Your task to perform on an android device: turn vacation reply on in the gmail app Image 0: 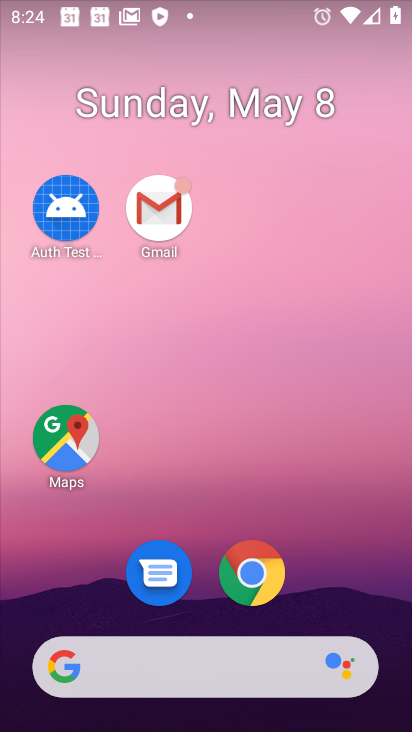
Step 0: drag from (367, 600) to (72, 71)
Your task to perform on an android device: turn vacation reply on in the gmail app Image 1: 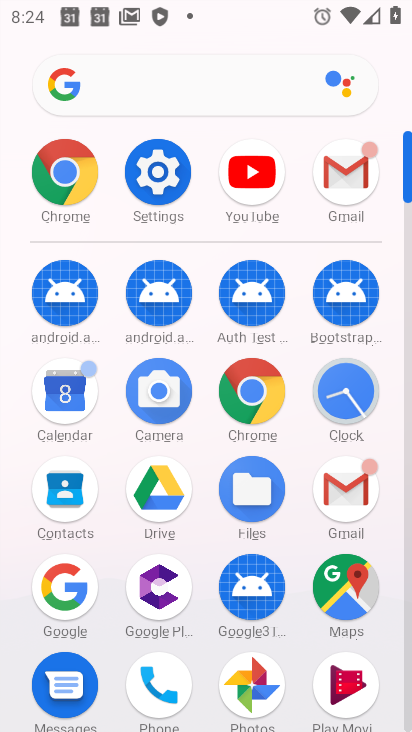
Step 1: click (344, 169)
Your task to perform on an android device: turn vacation reply on in the gmail app Image 2: 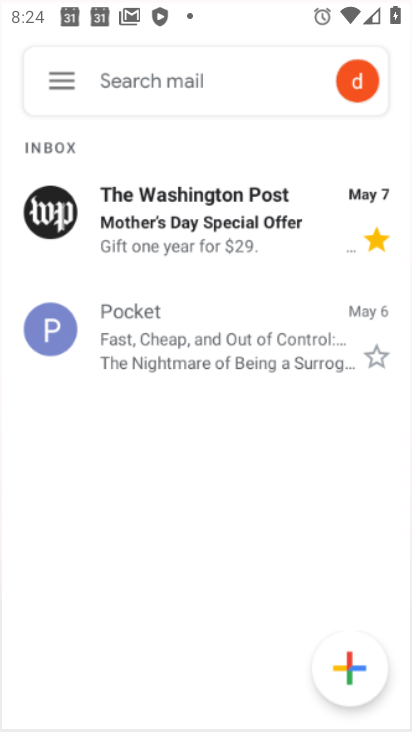
Step 2: click (344, 169)
Your task to perform on an android device: turn vacation reply on in the gmail app Image 3: 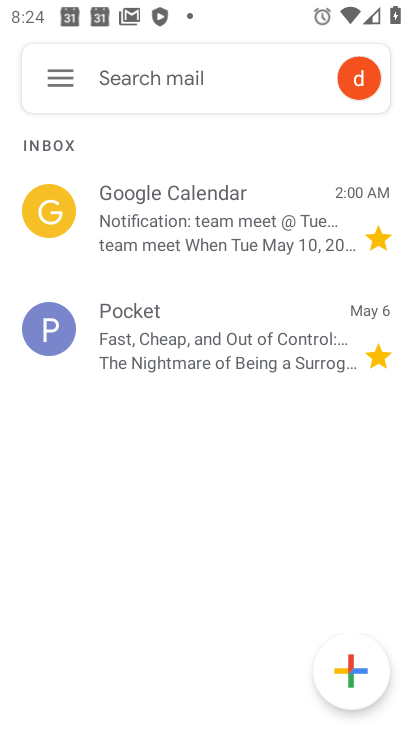
Step 3: click (64, 75)
Your task to perform on an android device: turn vacation reply on in the gmail app Image 4: 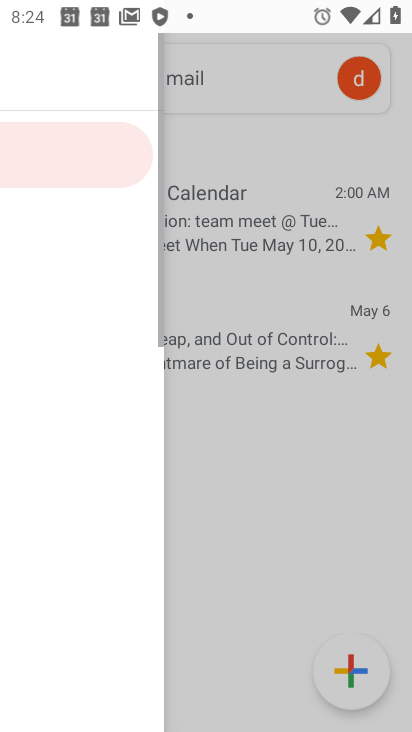
Step 4: click (63, 74)
Your task to perform on an android device: turn vacation reply on in the gmail app Image 5: 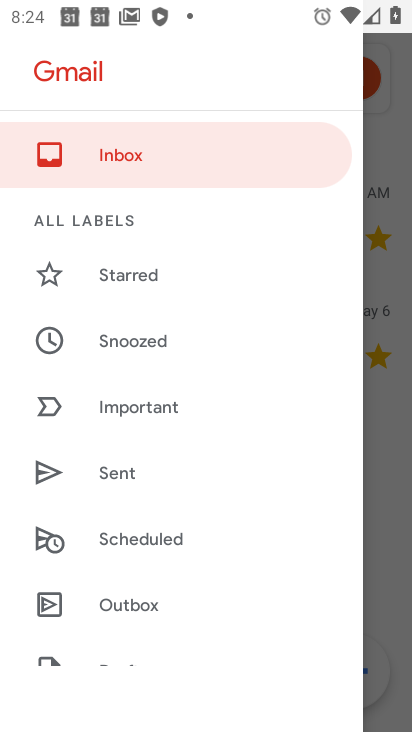
Step 5: drag from (225, 574) to (156, 230)
Your task to perform on an android device: turn vacation reply on in the gmail app Image 6: 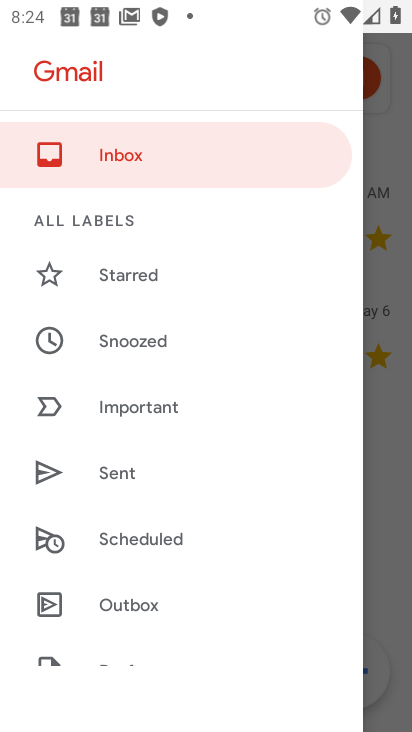
Step 6: drag from (199, 295) to (219, 574)
Your task to perform on an android device: turn vacation reply on in the gmail app Image 7: 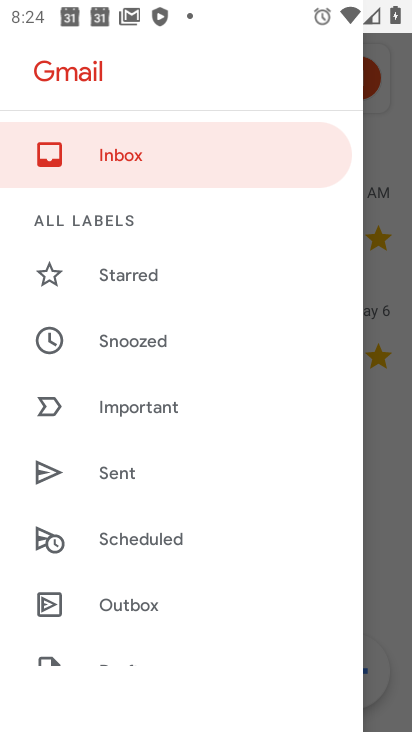
Step 7: drag from (181, 274) to (300, 680)
Your task to perform on an android device: turn vacation reply on in the gmail app Image 8: 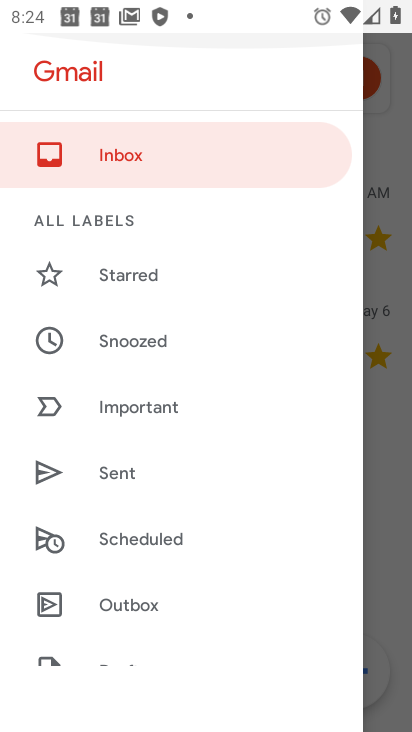
Step 8: drag from (216, 558) to (152, 116)
Your task to perform on an android device: turn vacation reply on in the gmail app Image 9: 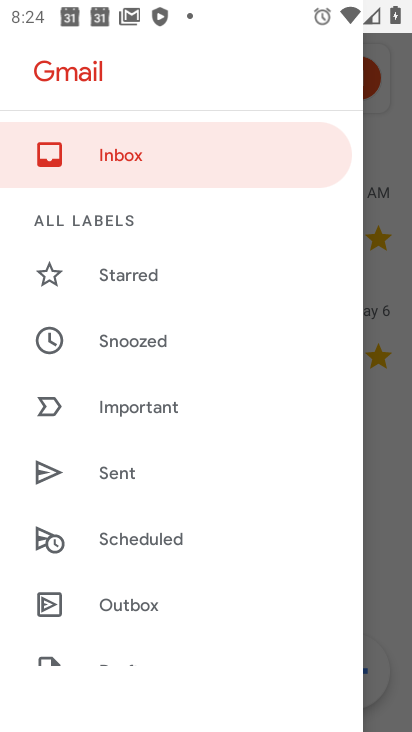
Step 9: drag from (193, 424) to (152, 7)
Your task to perform on an android device: turn vacation reply on in the gmail app Image 10: 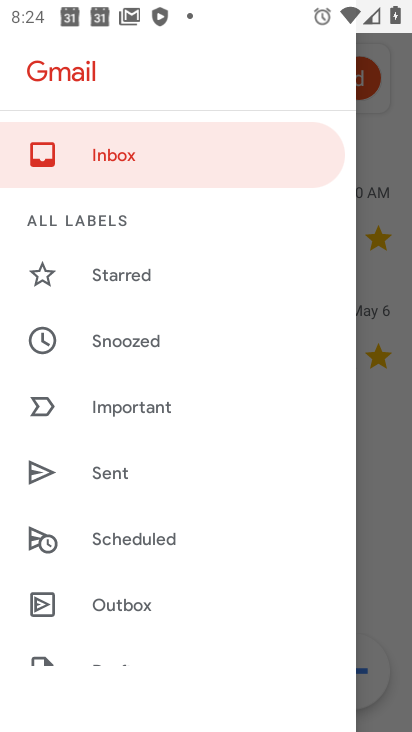
Step 10: drag from (187, 465) to (147, 112)
Your task to perform on an android device: turn vacation reply on in the gmail app Image 11: 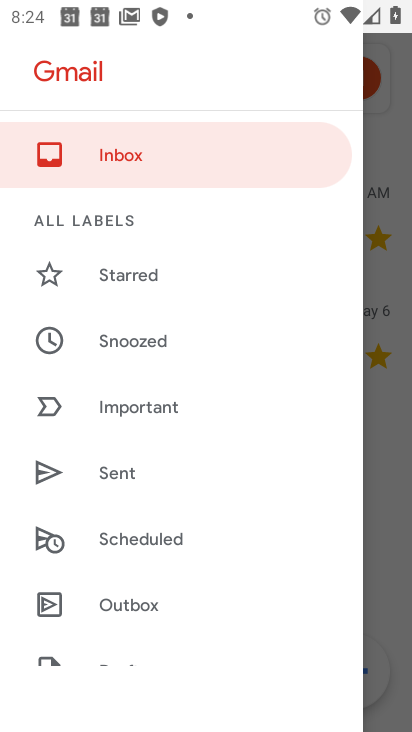
Step 11: drag from (181, 344) to (252, 590)
Your task to perform on an android device: turn vacation reply on in the gmail app Image 12: 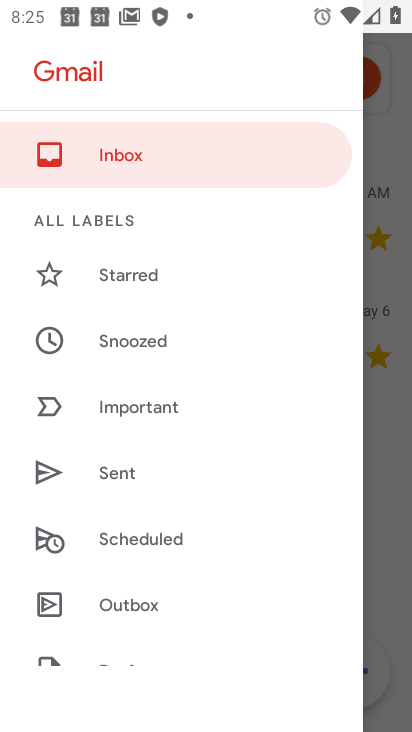
Step 12: drag from (160, 299) to (214, 676)
Your task to perform on an android device: turn vacation reply on in the gmail app Image 13: 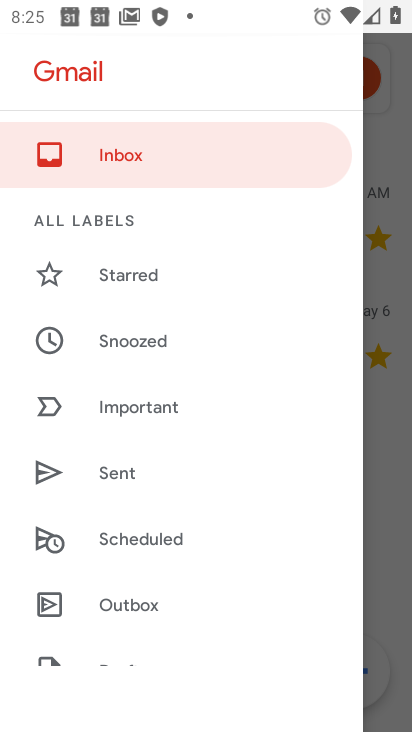
Step 13: drag from (207, 517) to (144, 82)
Your task to perform on an android device: turn vacation reply on in the gmail app Image 14: 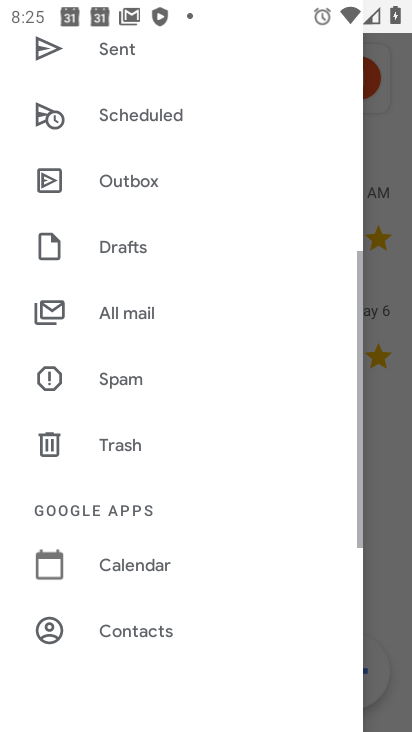
Step 14: drag from (204, 569) to (85, 124)
Your task to perform on an android device: turn vacation reply on in the gmail app Image 15: 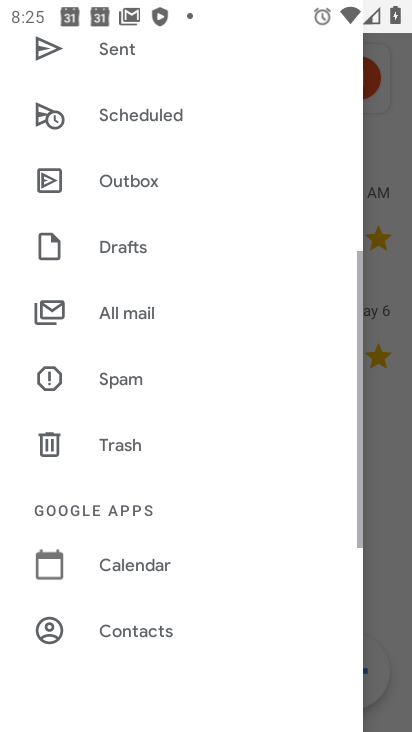
Step 15: drag from (141, 539) to (154, 13)
Your task to perform on an android device: turn vacation reply on in the gmail app Image 16: 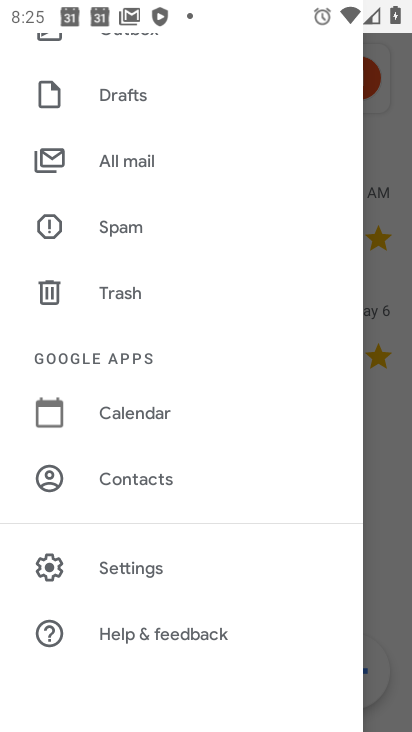
Step 16: click (129, 564)
Your task to perform on an android device: turn vacation reply on in the gmail app Image 17: 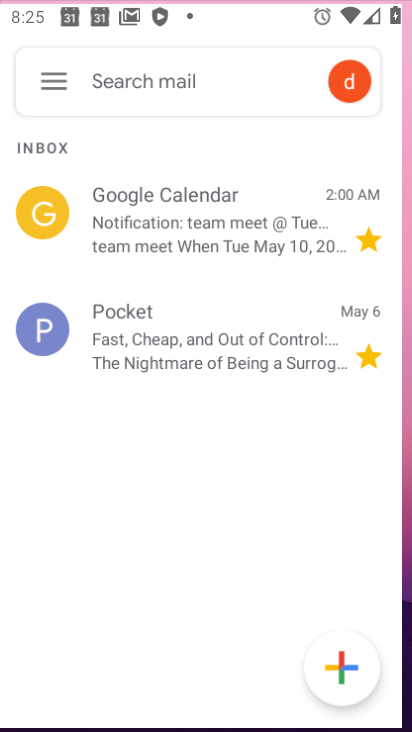
Step 17: click (125, 561)
Your task to perform on an android device: turn vacation reply on in the gmail app Image 18: 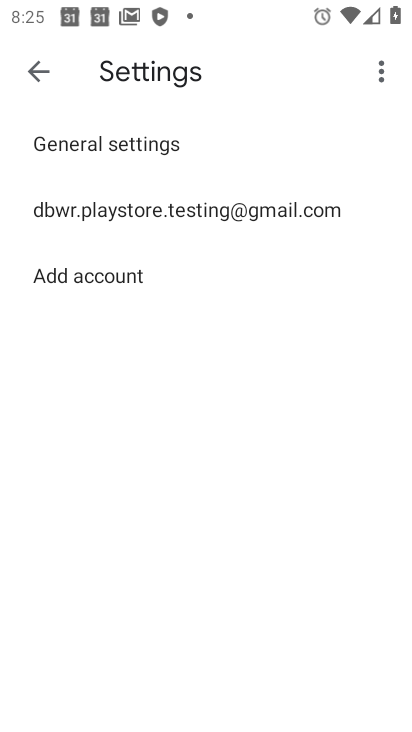
Step 18: click (158, 211)
Your task to perform on an android device: turn vacation reply on in the gmail app Image 19: 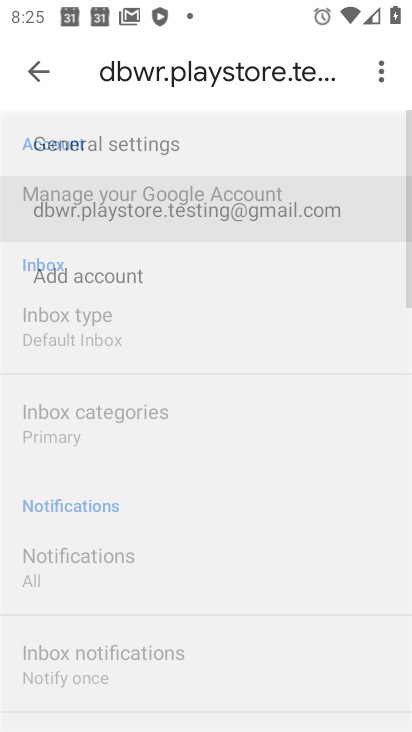
Step 19: click (158, 213)
Your task to perform on an android device: turn vacation reply on in the gmail app Image 20: 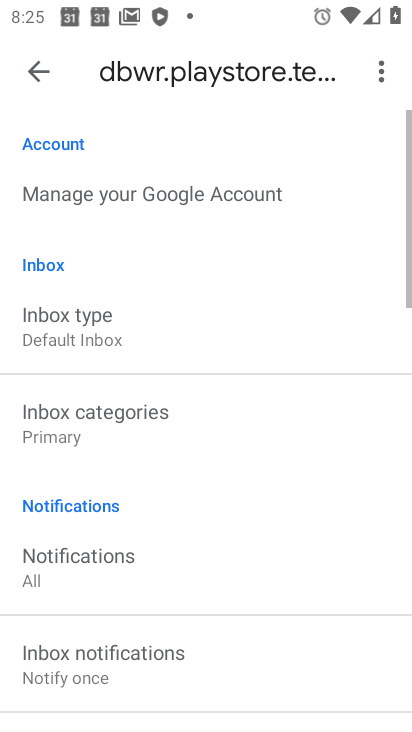
Step 20: click (158, 213)
Your task to perform on an android device: turn vacation reply on in the gmail app Image 21: 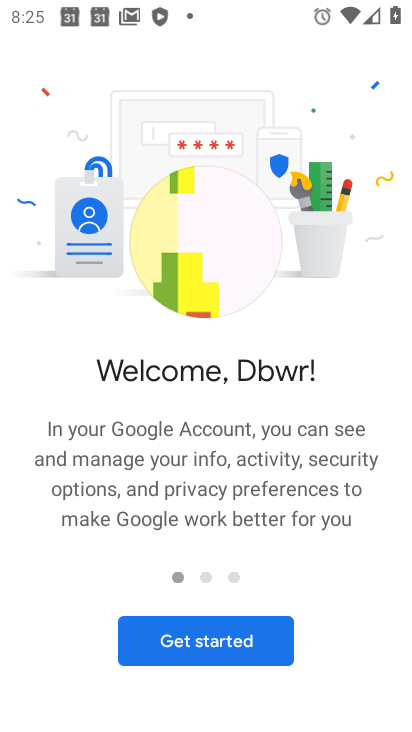
Step 21: click (218, 631)
Your task to perform on an android device: turn vacation reply on in the gmail app Image 22: 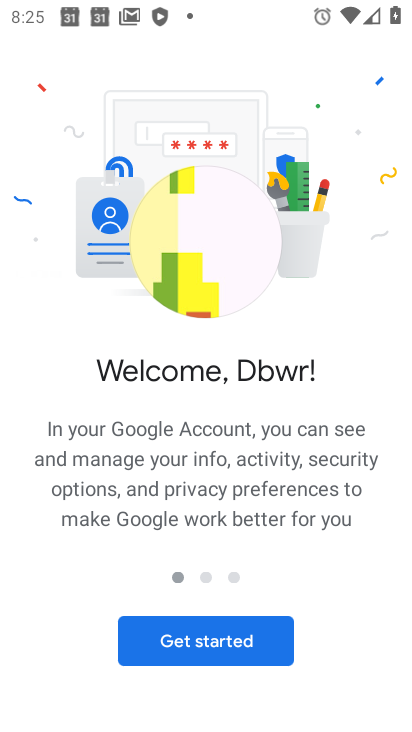
Step 22: click (212, 646)
Your task to perform on an android device: turn vacation reply on in the gmail app Image 23: 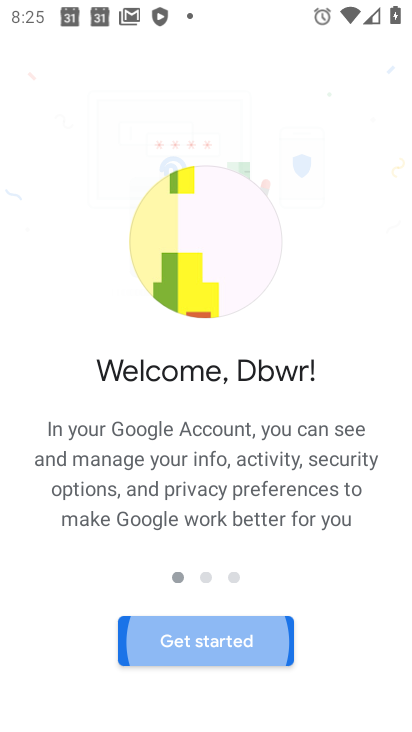
Step 23: click (206, 661)
Your task to perform on an android device: turn vacation reply on in the gmail app Image 24: 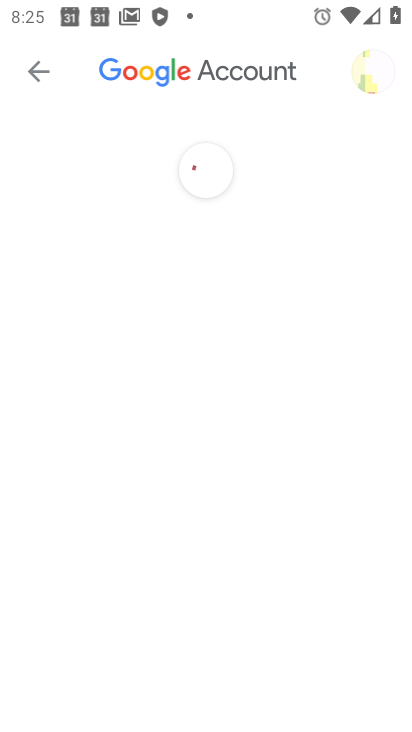
Step 24: click (31, 71)
Your task to perform on an android device: turn vacation reply on in the gmail app Image 25: 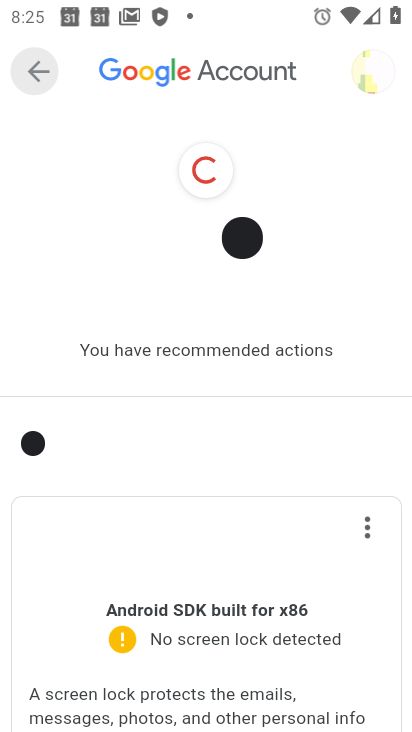
Step 25: click (31, 70)
Your task to perform on an android device: turn vacation reply on in the gmail app Image 26: 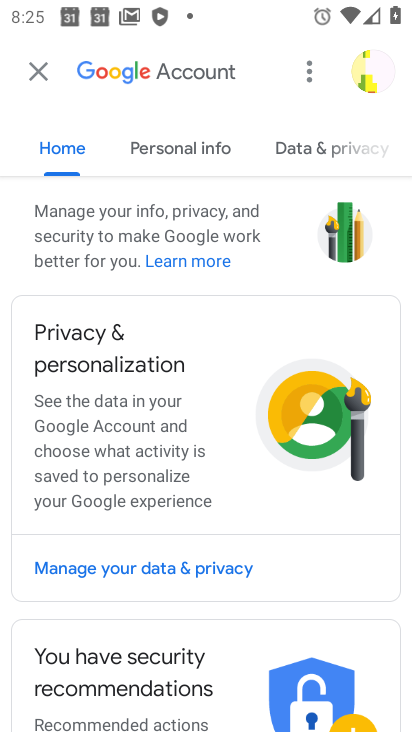
Step 26: click (37, 74)
Your task to perform on an android device: turn vacation reply on in the gmail app Image 27: 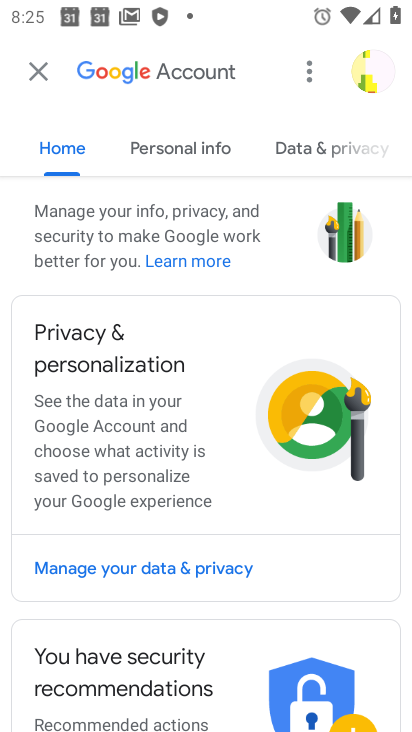
Step 27: click (35, 65)
Your task to perform on an android device: turn vacation reply on in the gmail app Image 28: 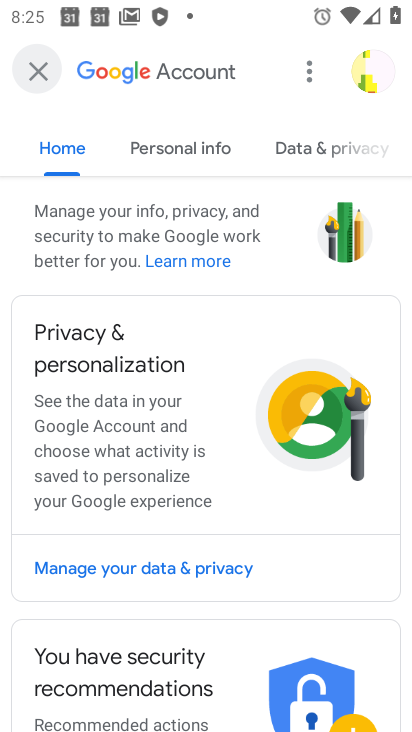
Step 28: click (35, 69)
Your task to perform on an android device: turn vacation reply on in the gmail app Image 29: 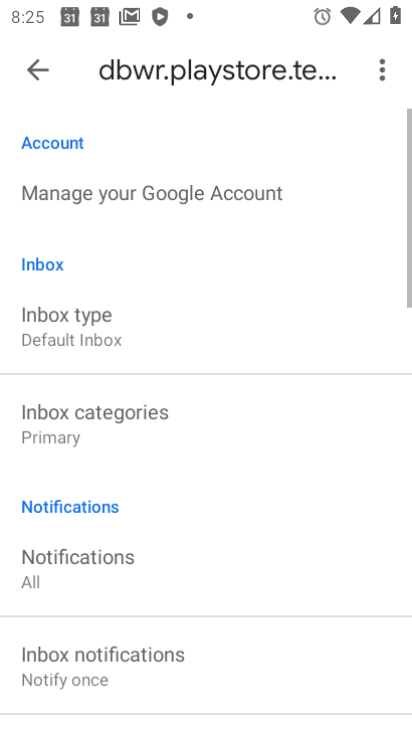
Step 29: click (35, 69)
Your task to perform on an android device: turn vacation reply on in the gmail app Image 30: 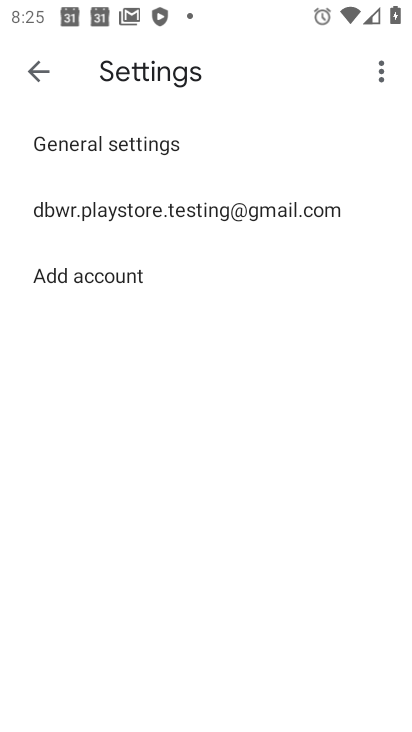
Step 30: click (114, 202)
Your task to perform on an android device: turn vacation reply on in the gmail app Image 31: 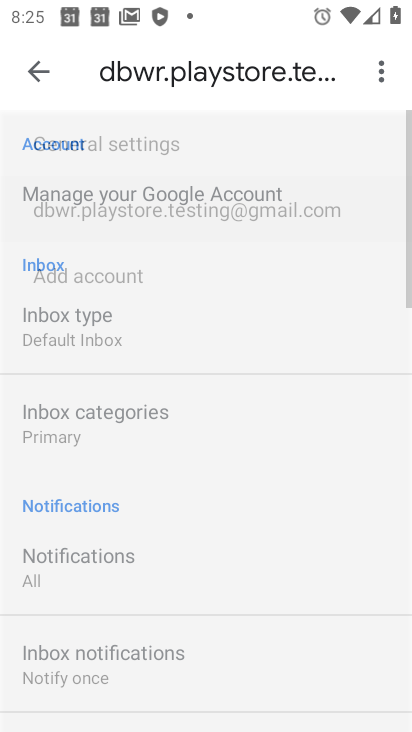
Step 31: click (115, 202)
Your task to perform on an android device: turn vacation reply on in the gmail app Image 32: 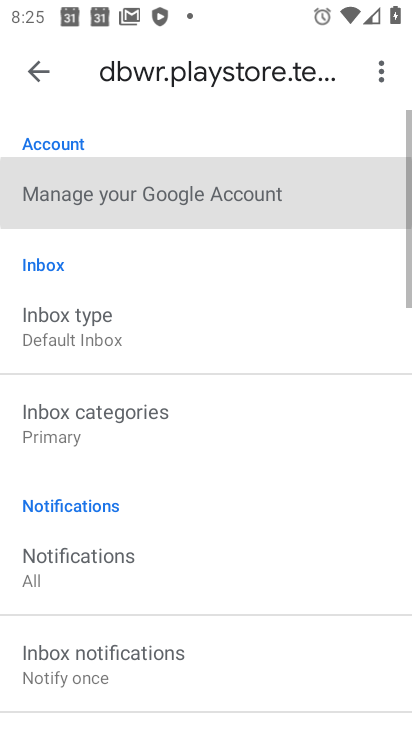
Step 32: click (117, 204)
Your task to perform on an android device: turn vacation reply on in the gmail app Image 33: 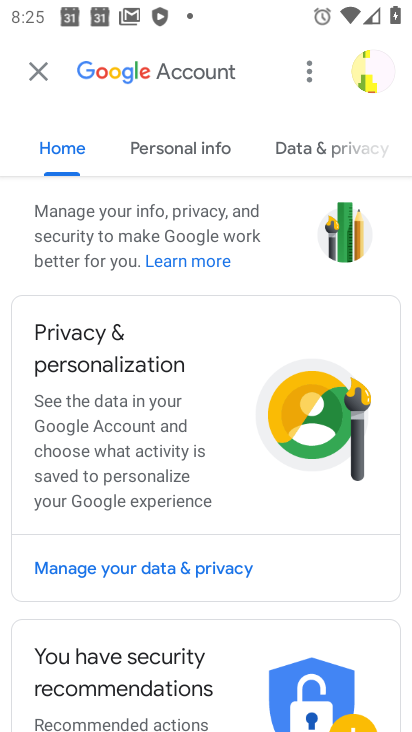
Step 33: click (37, 66)
Your task to perform on an android device: turn vacation reply on in the gmail app Image 34: 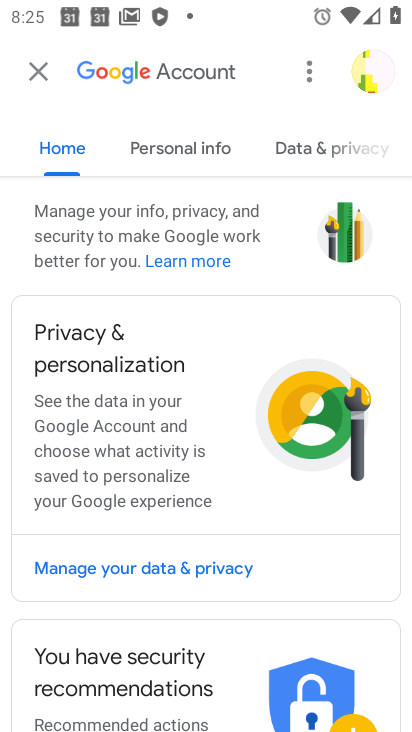
Step 34: click (37, 66)
Your task to perform on an android device: turn vacation reply on in the gmail app Image 35: 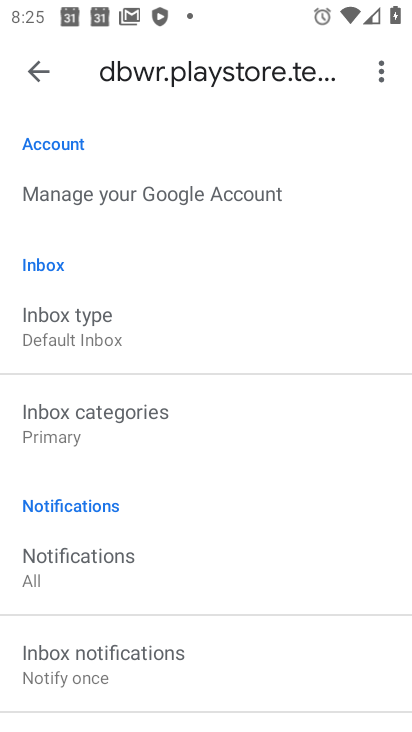
Step 35: click (36, 72)
Your task to perform on an android device: turn vacation reply on in the gmail app Image 36: 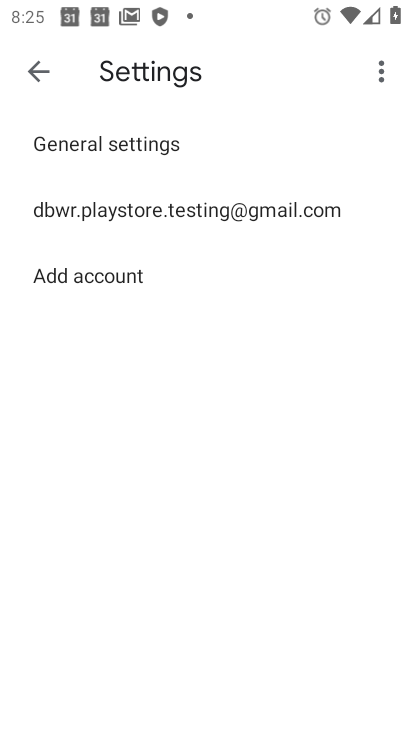
Step 36: click (33, 69)
Your task to perform on an android device: turn vacation reply on in the gmail app Image 37: 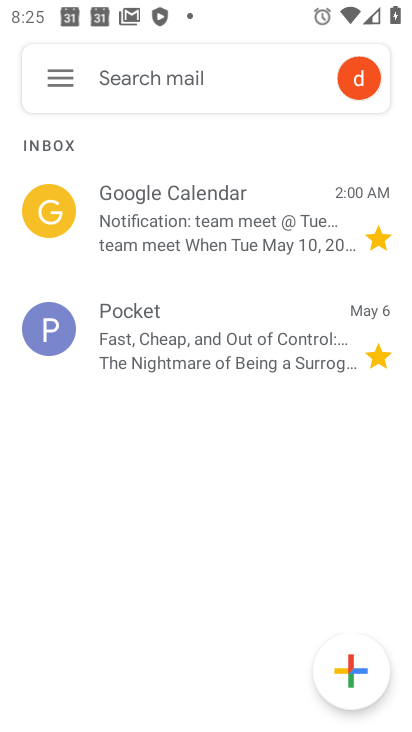
Step 37: click (58, 77)
Your task to perform on an android device: turn vacation reply on in the gmail app Image 38: 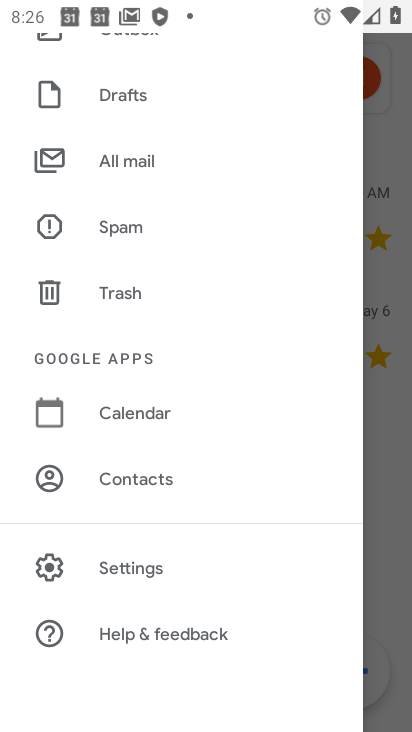
Step 38: click (124, 568)
Your task to perform on an android device: turn vacation reply on in the gmail app Image 39: 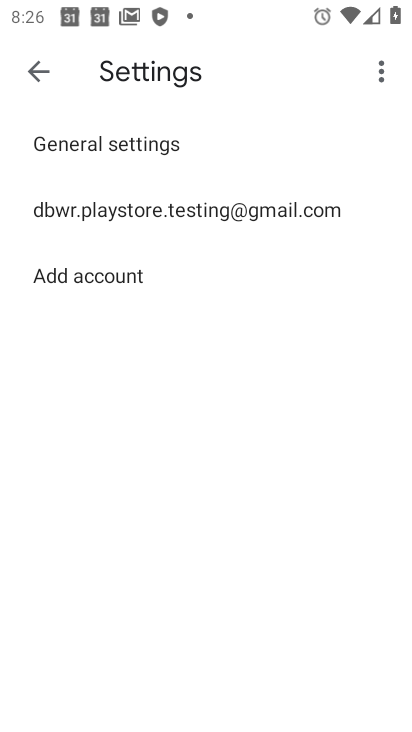
Step 39: click (114, 209)
Your task to perform on an android device: turn vacation reply on in the gmail app Image 40: 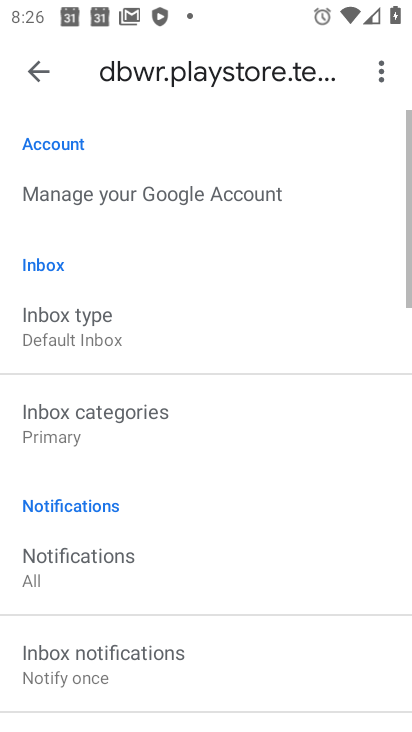
Step 40: drag from (186, 523) to (98, 141)
Your task to perform on an android device: turn vacation reply on in the gmail app Image 41: 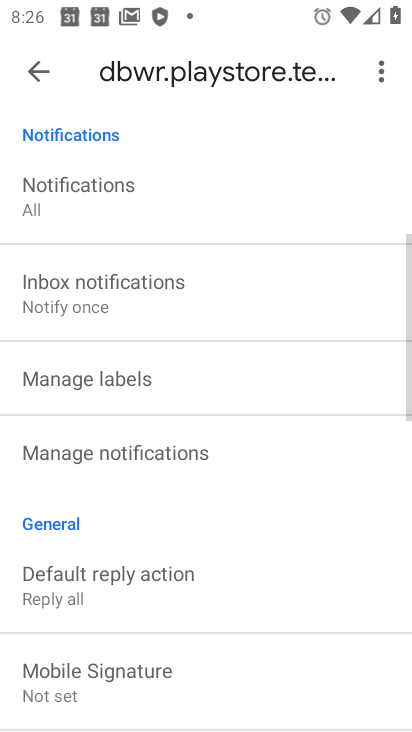
Step 41: drag from (139, 510) to (101, 86)
Your task to perform on an android device: turn vacation reply on in the gmail app Image 42: 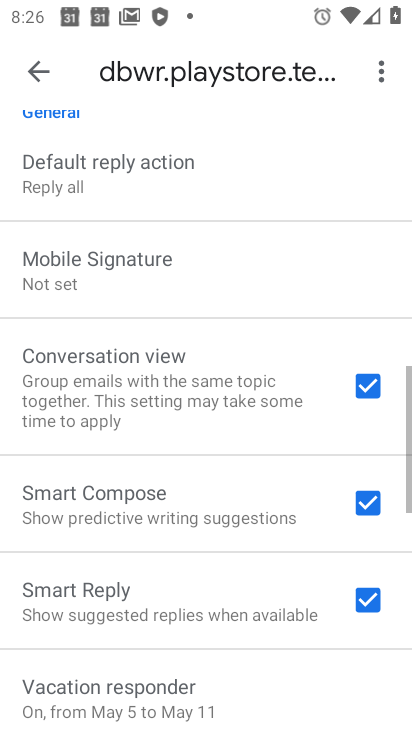
Step 42: drag from (188, 470) to (206, 86)
Your task to perform on an android device: turn vacation reply on in the gmail app Image 43: 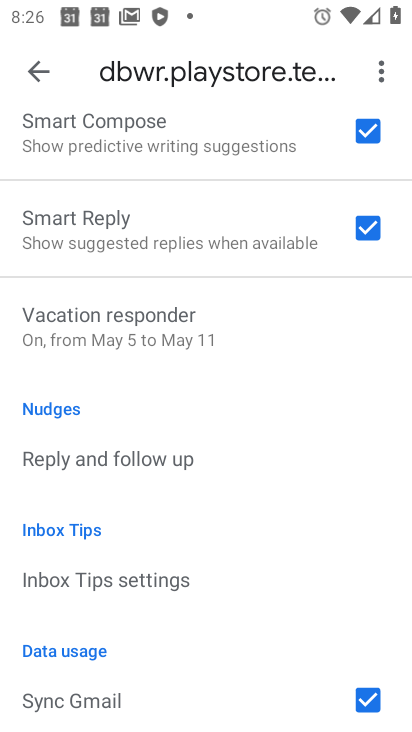
Step 43: drag from (184, 189) to (213, 485)
Your task to perform on an android device: turn vacation reply on in the gmail app Image 44: 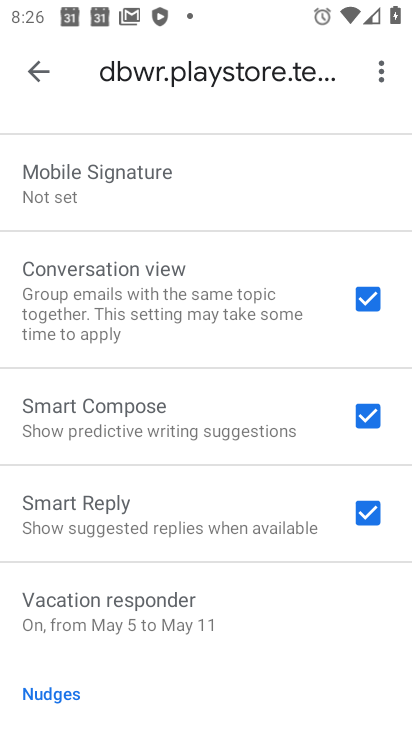
Step 44: drag from (134, 534) to (74, 127)
Your task to perform on an android device: turn vacation reply on in the gmail app Image 45: 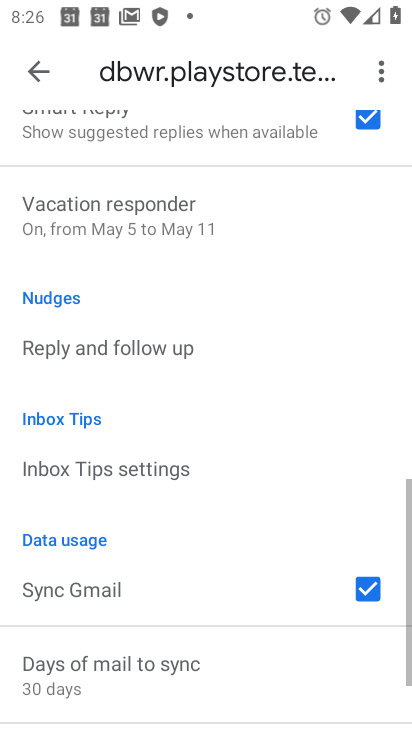
Step 45: click (123, 223)
Your task to perform on an android device: turn vacation reply on in the gmail app Image 46: 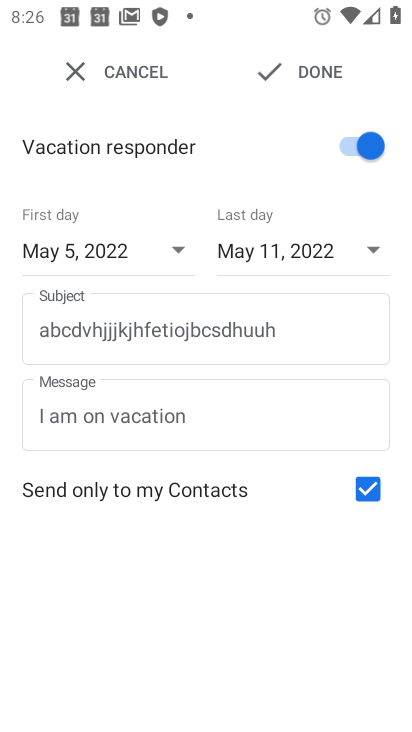
Step 46: task complete